Your task to perform on an android device: change notifications settings Image 0: 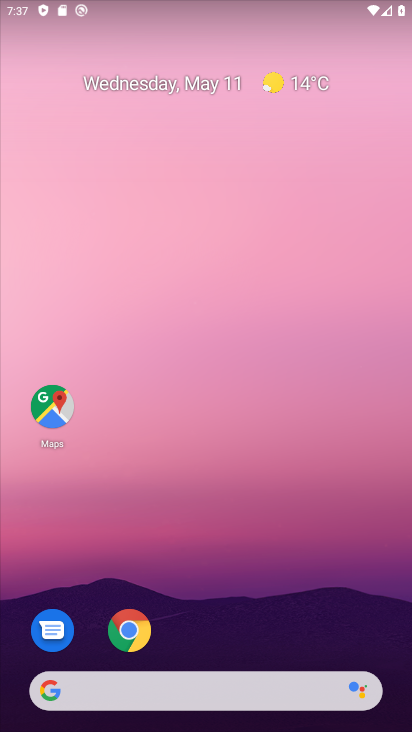
Step 0: drag from (294, 639) to (161, 237)
Your task to perform on an android device: change notifications settings Image 1: 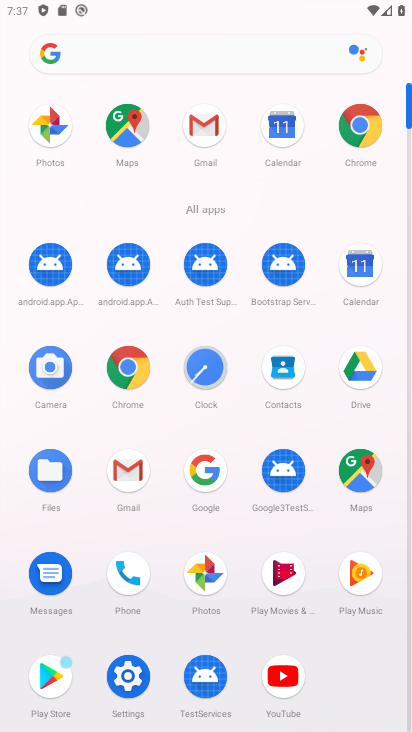
Step 1: click (123, 678)
Your task to perform on an android device: change notifications settings Image 2: 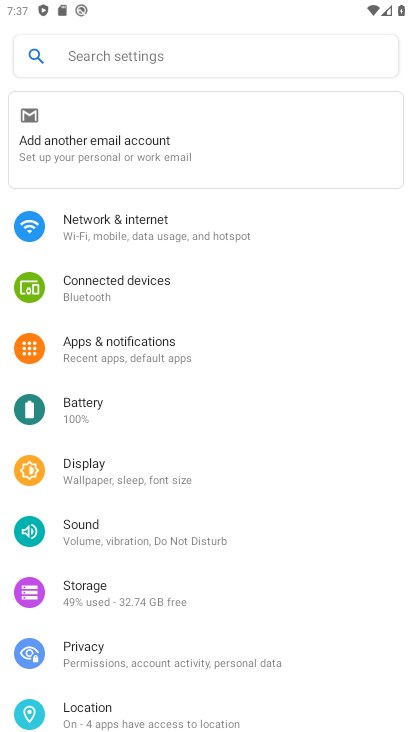
Step 2: click (101, 344)
Your task to perform on an android device: change notifications settings Image 3: 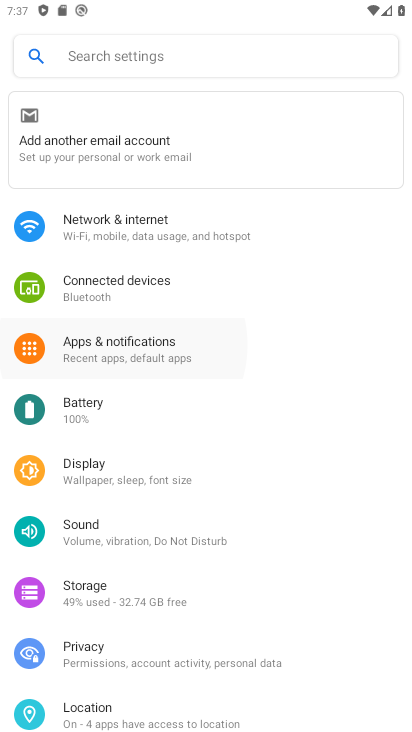
Step 3: click (103, 345)
Your task to perform on an android device: change notifications settings Image 4: 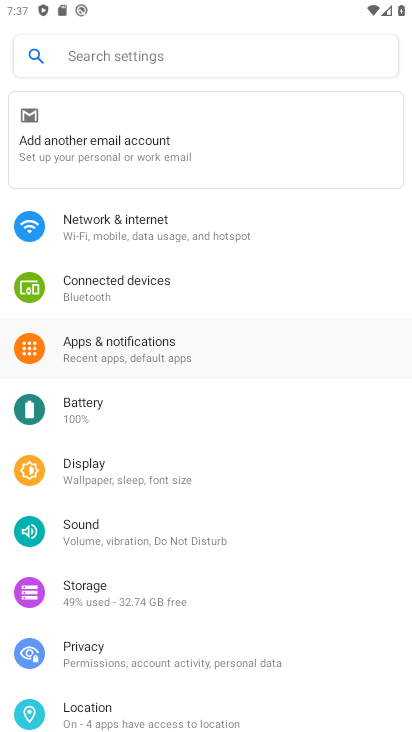
Step 4: click (103, 345)
Your task to perform on an android device: change notifications settings Image 5: 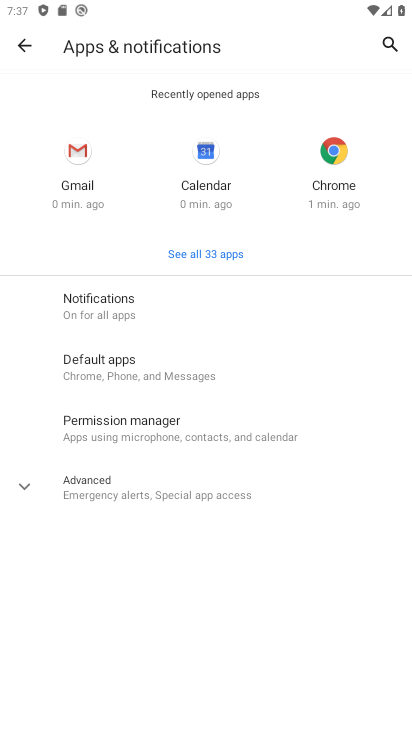
Step 5: click (119, 296)
Your task to perform on an android device: change notifications settings Image 6: 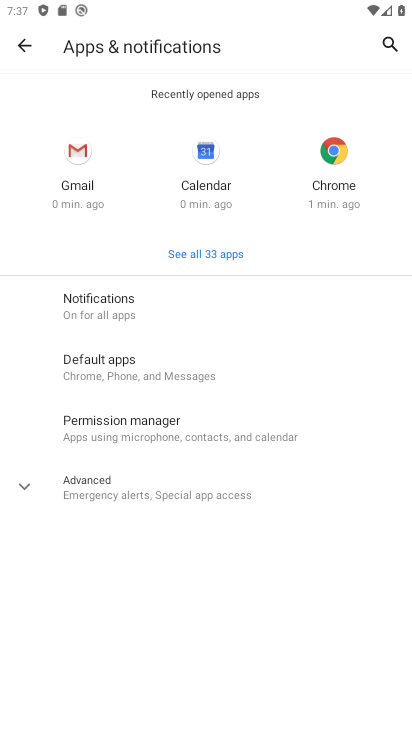
Step 6: click (113, 300)
Your task to perform on an android device: change notifications settings Image 7: 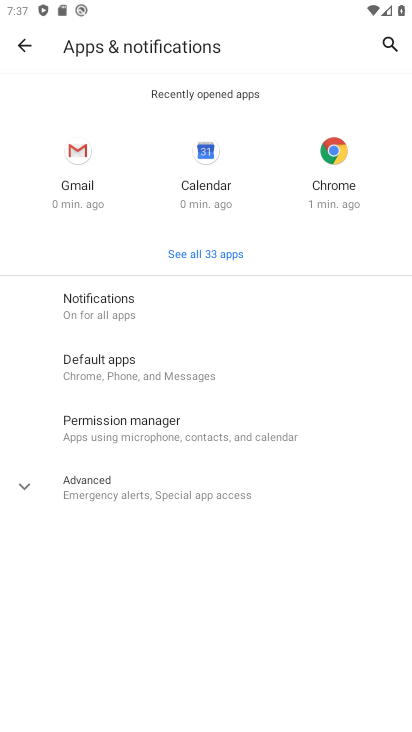
Step 7: click (111, 302)
Your task to perform on an android device: change notifications settings Image 8: 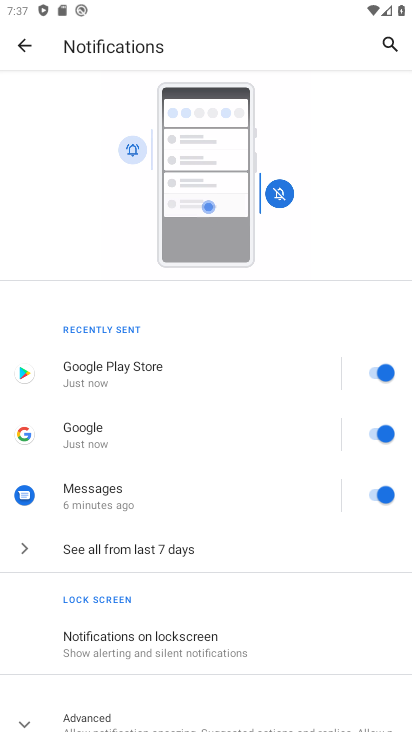
Step 8: drag from (187, 564) to (111, 300)
Your task to perform on an android device: change notifications settings Image 9: 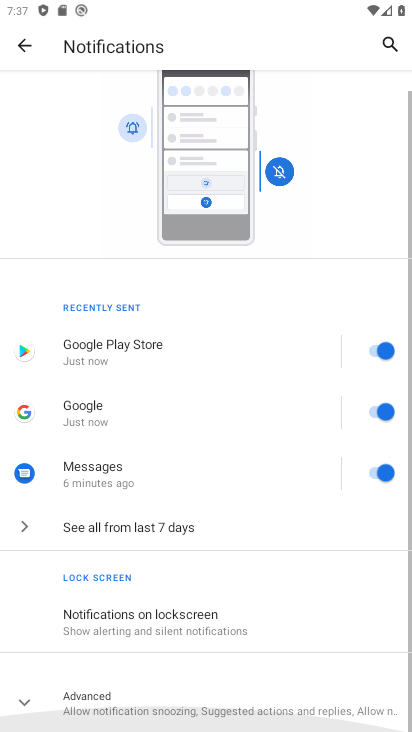
Step 9: drag from (139, 445) to (79, 168)
Your task to perform on an android device: change notifications settings Image 10: 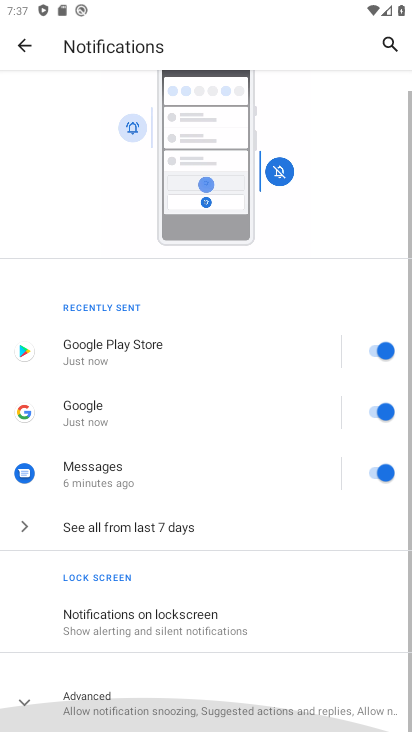
Step 10: drag from (199, 588) to (141, 259)
Your task to perform on an android device: change notifications settings Image 11: 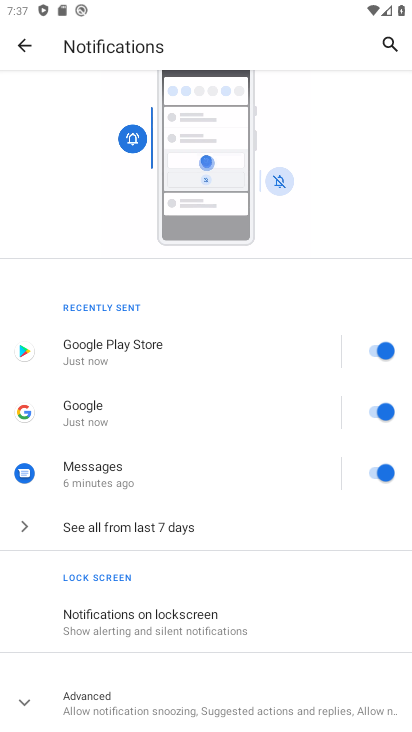
Step 11: drag from (163, 652) to (182, 244)
Your task to perform on an android device: change notifications settings Image 12: 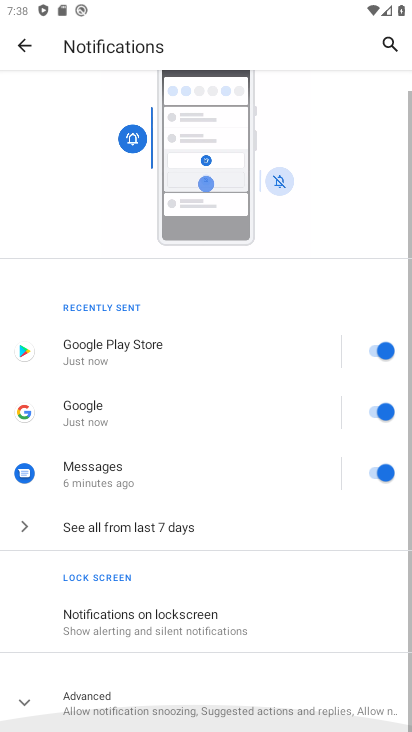
Step 12: drag from (219, 514) to (179, 143)
Your task to perform on an android device: change notifications settings Image 13: 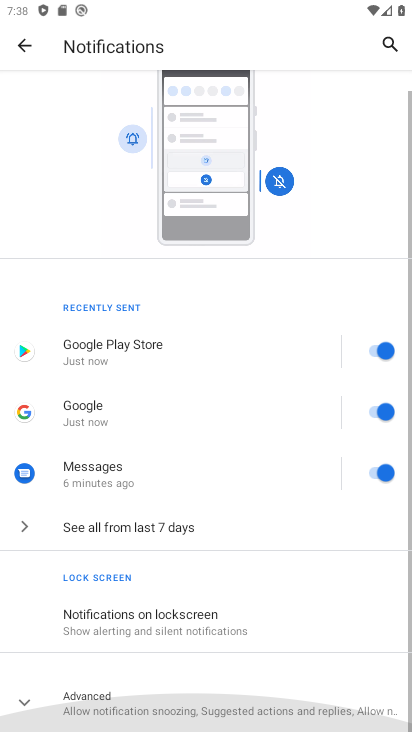
Step 13: drag from (224, 640) to (255, 94)
Your task to perform on an android device: change notifications settings Image 14: 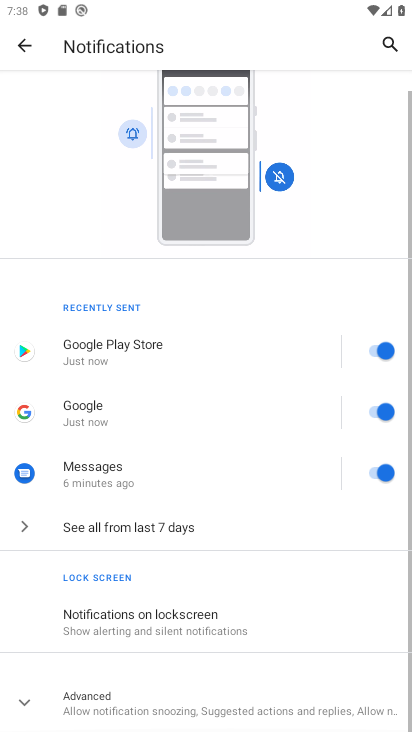
Step 14: click (127, 715)
Your task to perform on an android device: change notifications settings Image 15: 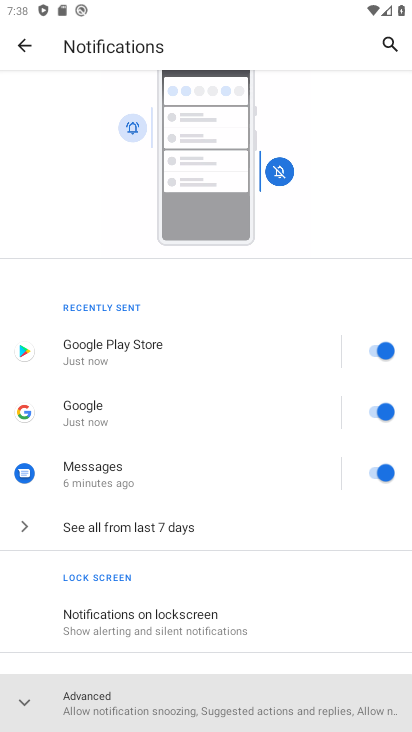
Step 15: click (121, 718)
Your task to perform on an android device: change notifications settings Image 16: 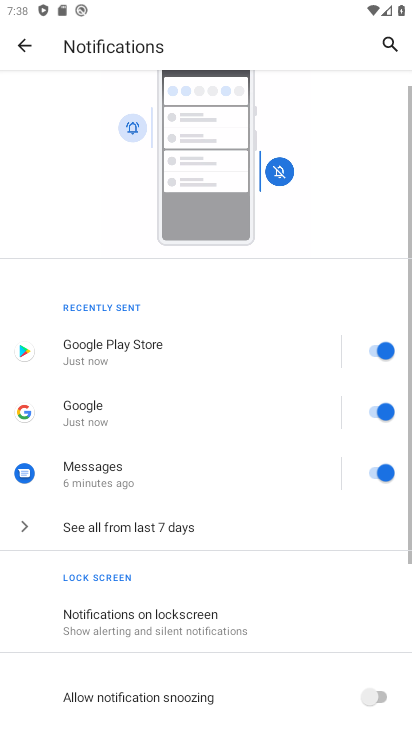
Step 16: click (121, 718)
Your task to perform on an android device: change notifications settings Image 17: 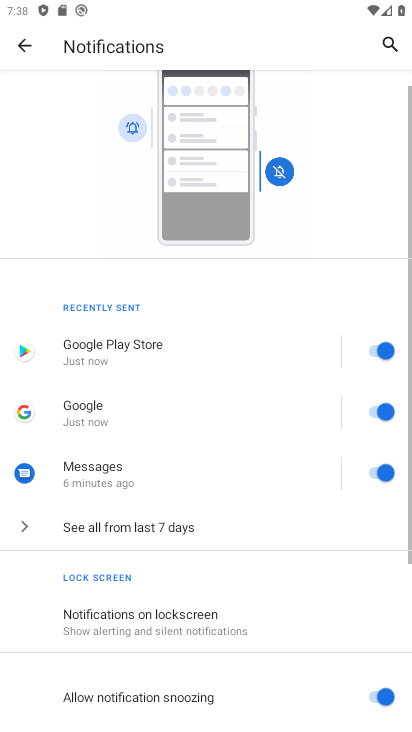
Step 17: drag from (217, 615) to (205, 126)
Your task to perform on an android device: change notifications settings Image 18: 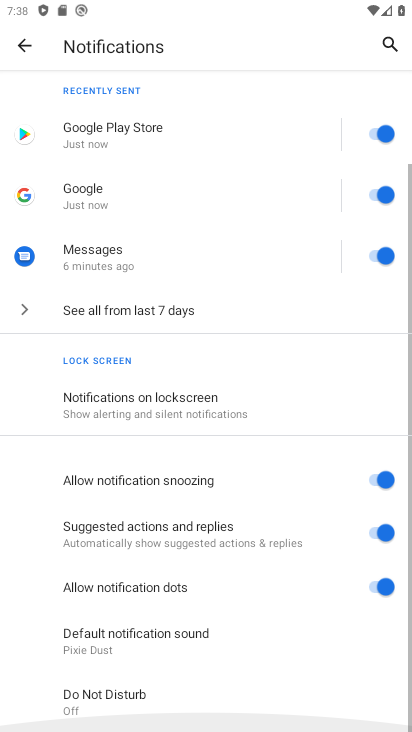
Step 18: drag from (258, 530) to (325, 177)
Your task to perform on an android device: change notifications settings Image 19: 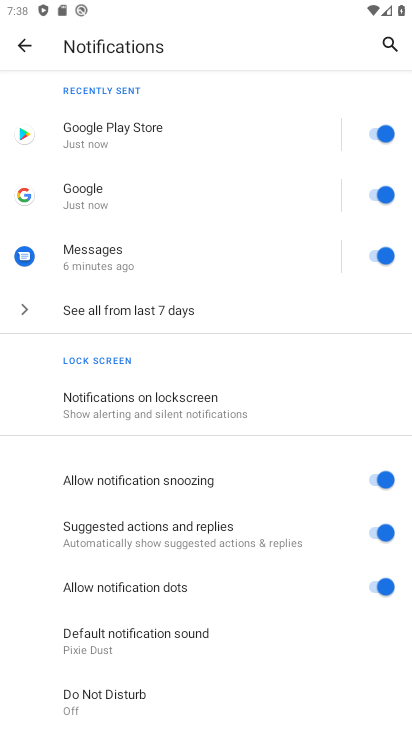
Step 19: click (364, 592)
Your task to perform on an android device: change notifications settings Image 20: 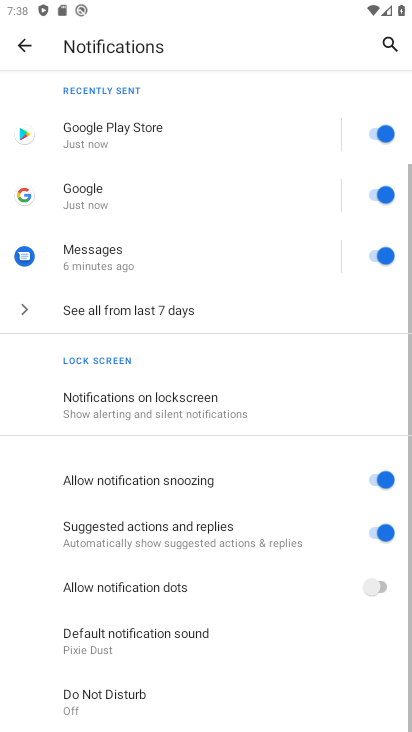
Step 20: click (383, 586)
Your task to perform on an android device: change notifications settings Image 21: 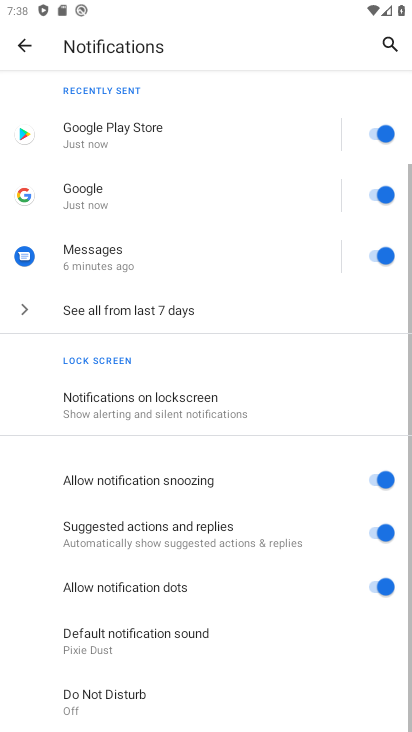
Step 21: click (393, 475)
Your task to perform on an android device: change notifications settings Image 22: 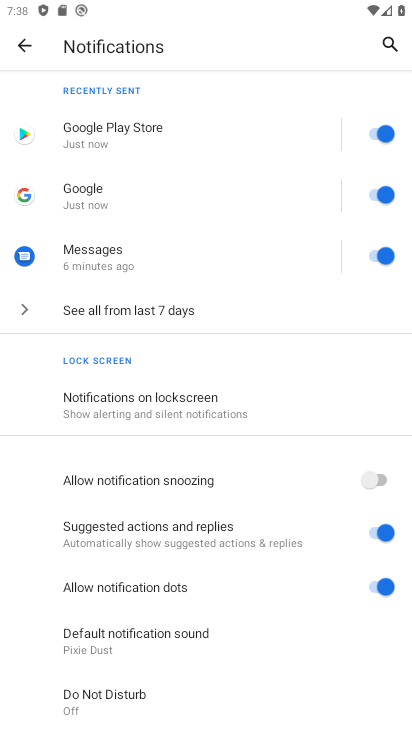
Step 22: click (386, 587)
Your task to perform on an android device: change notifications settings Image 23: 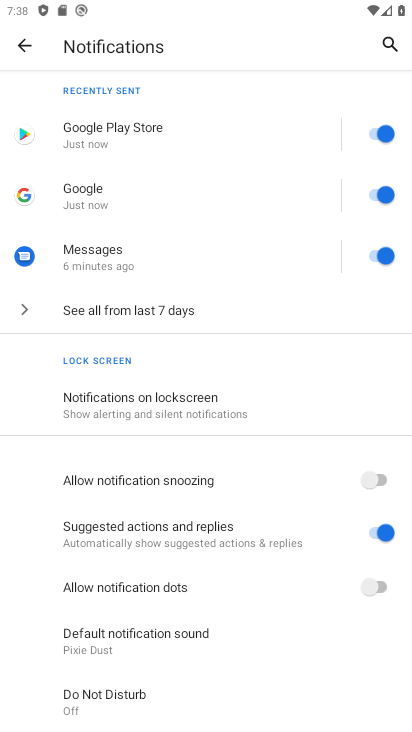
Step 23: click (200, 397)
Your task to perform on an android device: change notifications settings Image 24: 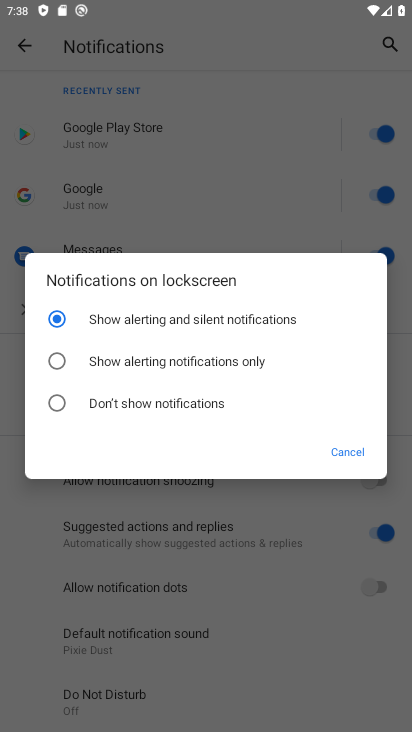
Step 24: click (57, 402)
Your task to perform on an android device: change notifications settings Image 25: 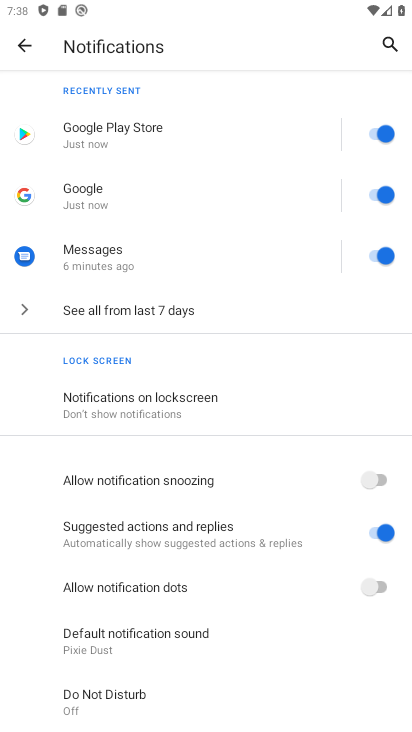
Step 25: task complete